Your task to perform on an android device: visit the assistant section in the google photos Image 0: 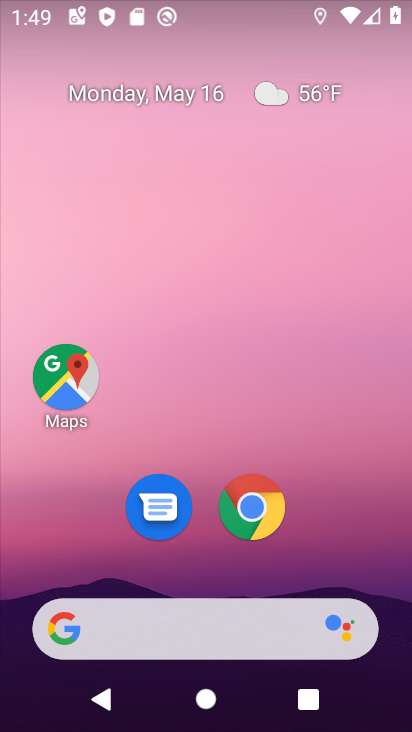
Step 0: drag from (191, 546) to (183, 29)
Your task to perform on an android device: visit the assistant section in the google photos Image 1: 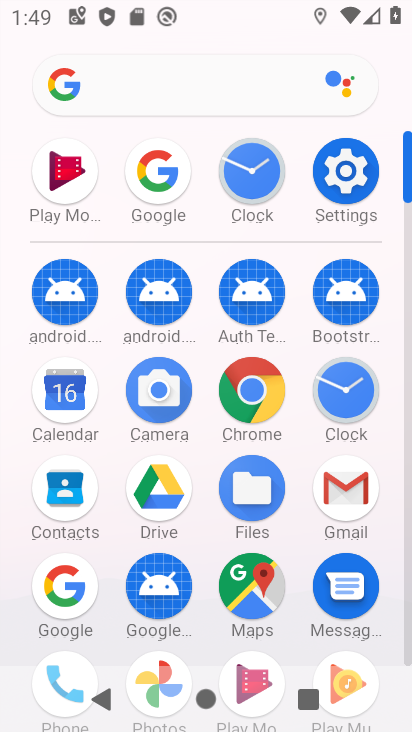
Step 1: drag from (113, 602) to (111, 158)
Your task to perform on an android device: visit the assistant section in the google photos Image 2: 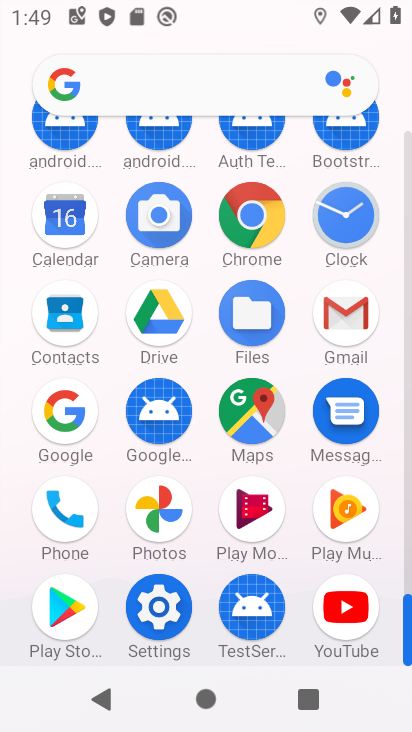
Step 2: click (163, 491)
Your task to perform on an android device: visit the assistant section in the google photos Image 3: 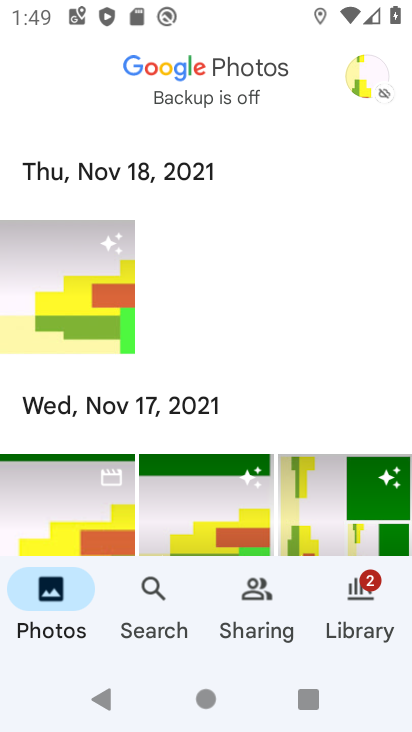
Step 3: click (278, 605)
Your task to perform on an android device: visit the assistant section in the google photos Image 4: 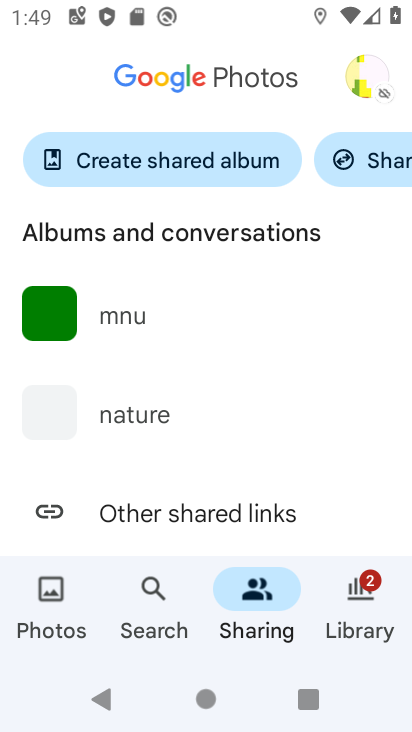
Step 4: click (382, 600)
Your task to perform on an android device: visit the assistant section in the google photos Image 5: 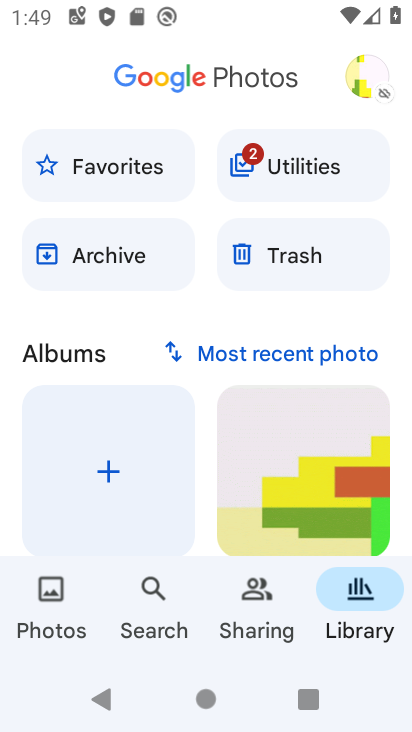
Step 5: task complete